Your task to perform on an android device: toggle data saver in the chrome app Image 0: 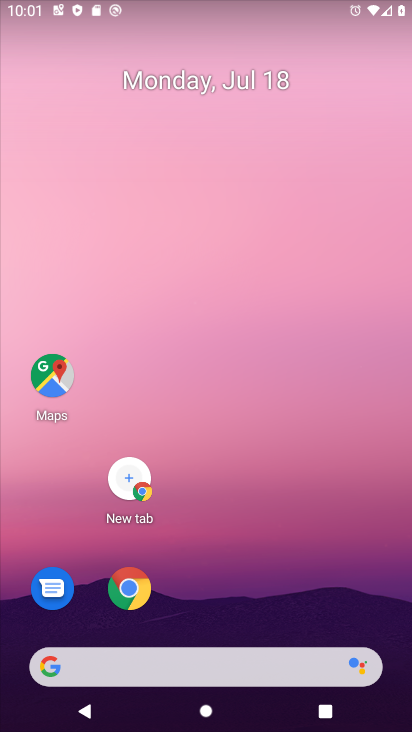
Step 0: click (136, 597)
Your task to perform on an android device: toggle data saver in the chrome app Image 1: 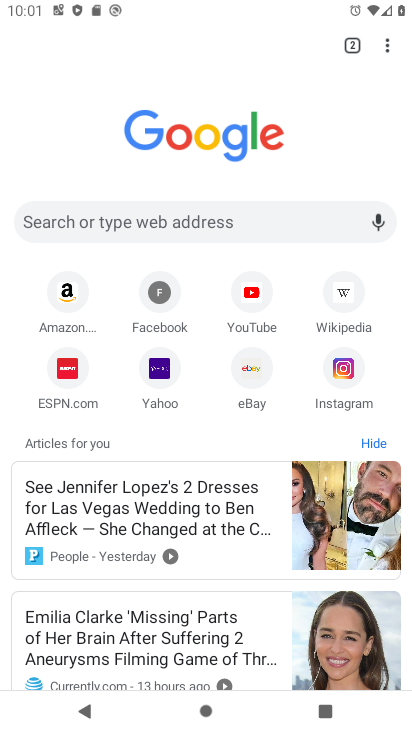
Step 1: click (393, 33)
Your task to perform on an android device: toggle data saver in the chrome app Image 2: 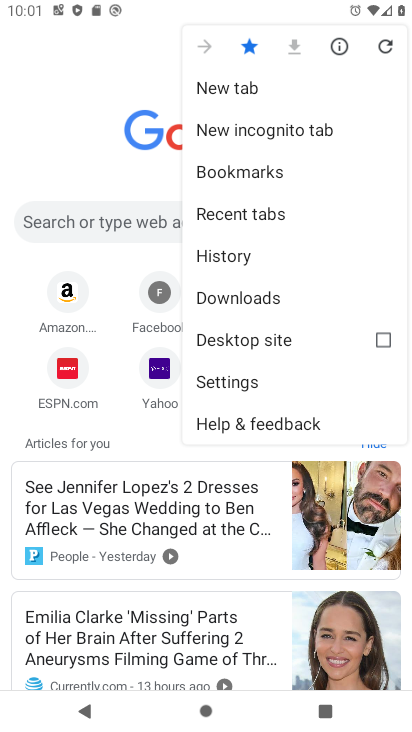
Step 2: click (225, 376)
Your task to perform on an android device: toggle data saver in the chrome app Image 3: 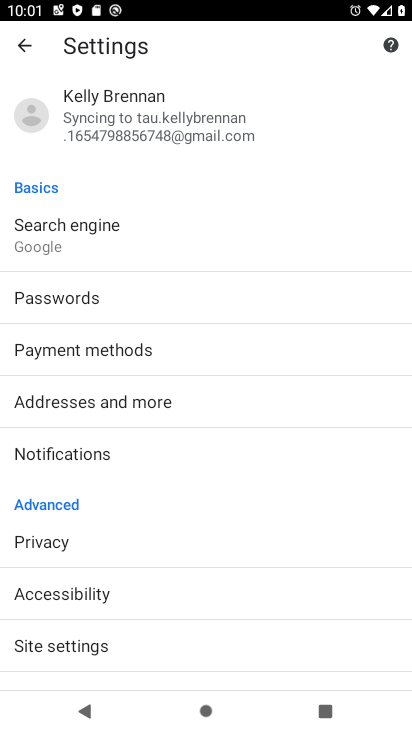
Step 3: drag from (88, 613) to (148, 181)
Your task to perform on an android device: toggle data saver in the chrome app Image 4: 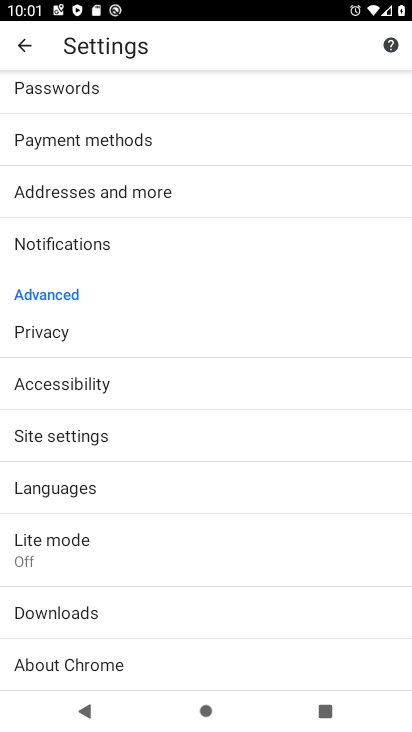
Step 4: click (73, 575)
Your task to perform on an android device: toggle data saver in the chrome app Image 5: 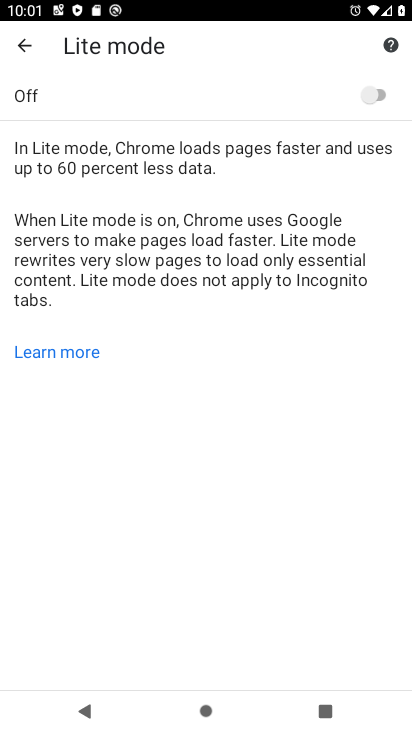
Step 5: click (373, 102)
Your task to perform on an android device: toggle data saver in the chrome app Image 6: 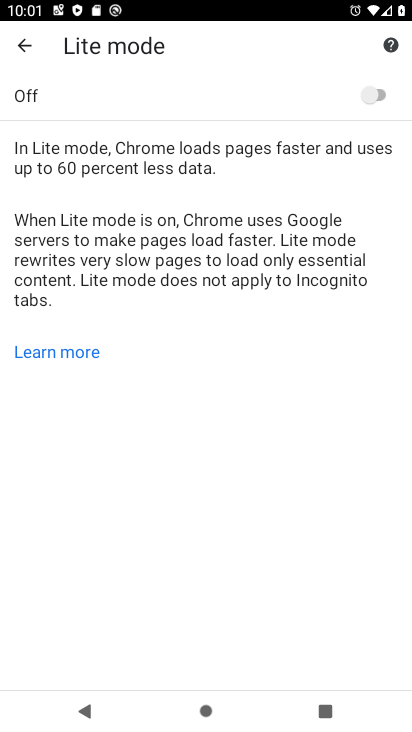
Step 6: click (373, 102)
Your task to perform on an android device: toggle data saver in the chrome app Image 7: 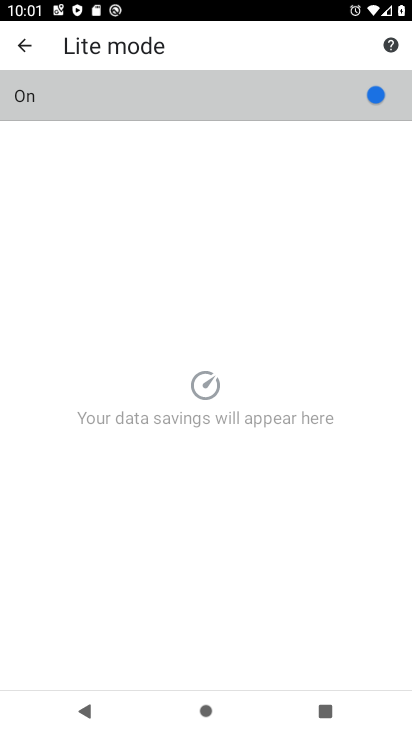
Step 7: click (373, 102)
Your task to perform on an android device: toggle data saver in the chrome app Image 8: 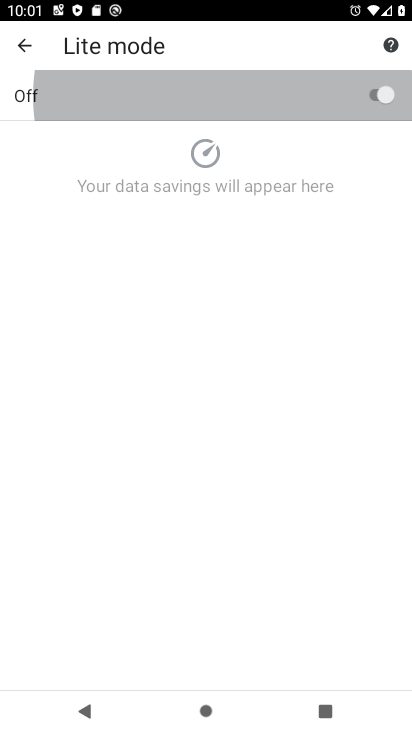
Step 8: click (373, 102)
Your task to perform on an android device: toggle data saver in the chrome app Image 9: 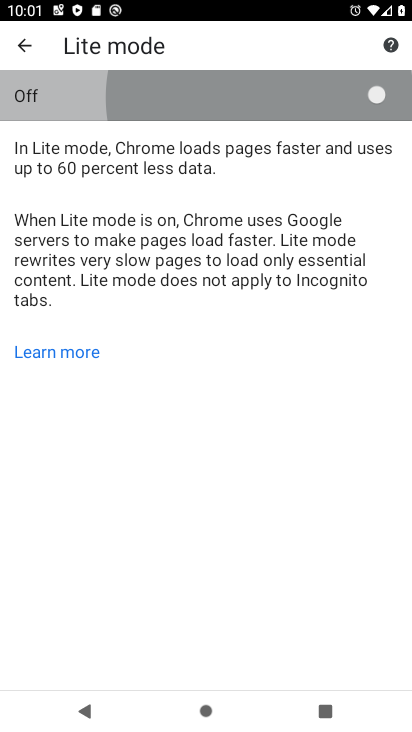
Step 9: click (373, 102)
Your task to perform on an android device: toggle data saver in the chrome app Image 10: 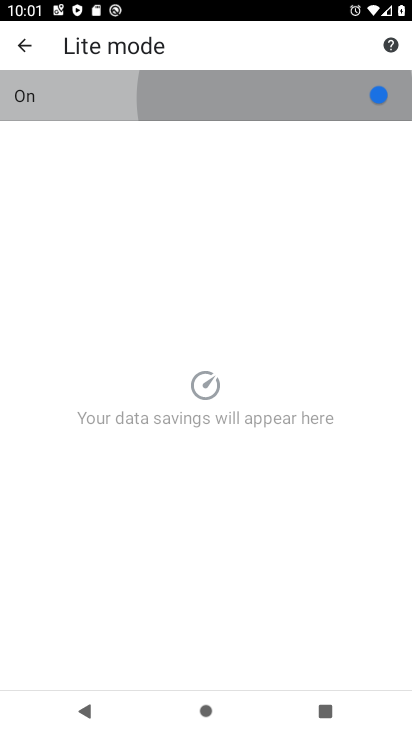
Step 10: click (373, 102)
Your task to perform on an android device: toggle data saver in the chrome app Image 11: 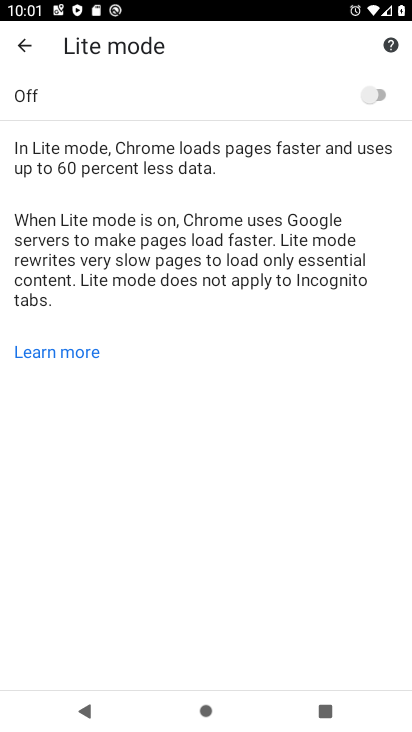
Step 11: task complete